Your task to perform on an android device: show emergency info Image 0: 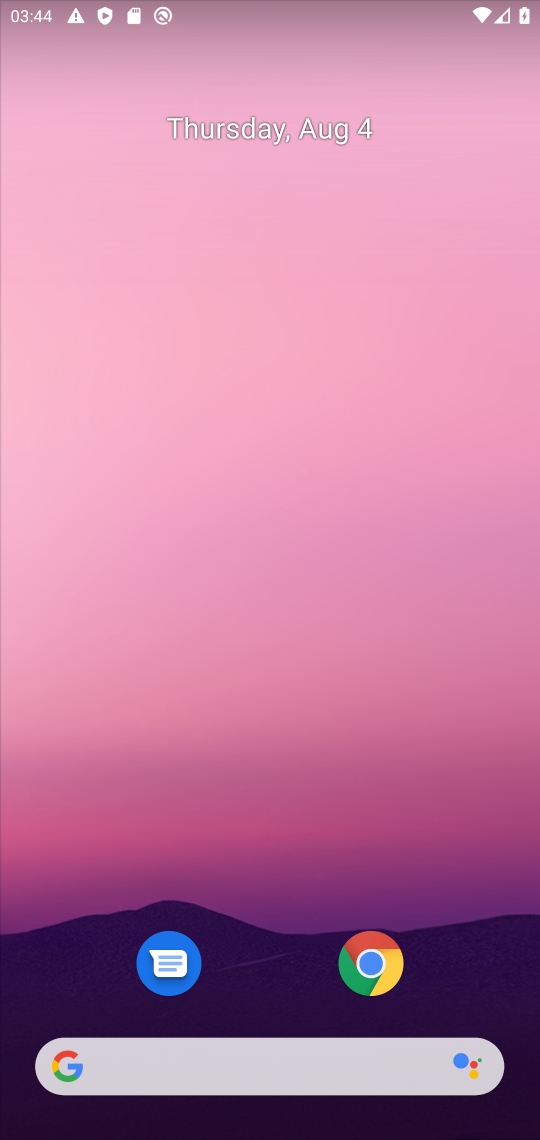
Step 0: drag from (503, 914) to (510, 25)
Your task to perform on an android device: show emergency info Image 1: 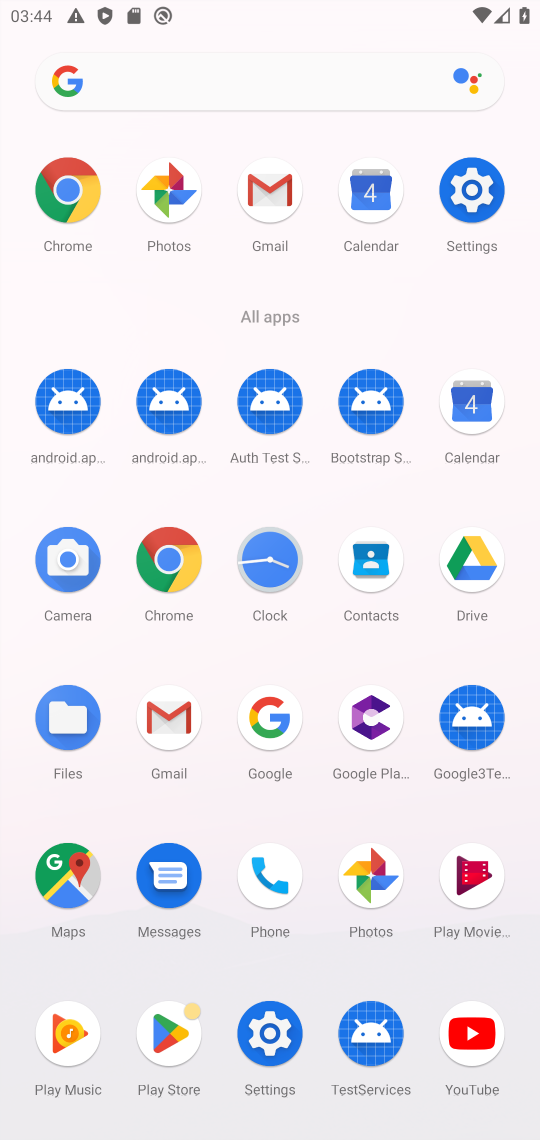
Step 1: click (467, 195)
Your task to perform on an android device: show emergency info Image 2: 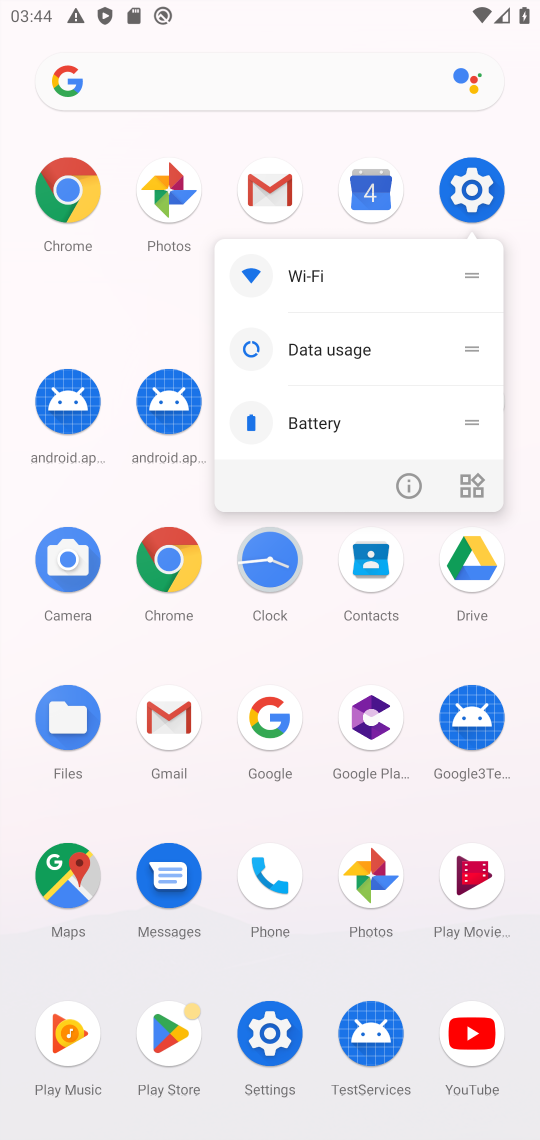
Step 2: click (467, 195)
Your task to perform on an android device: show emergency info Image 3: 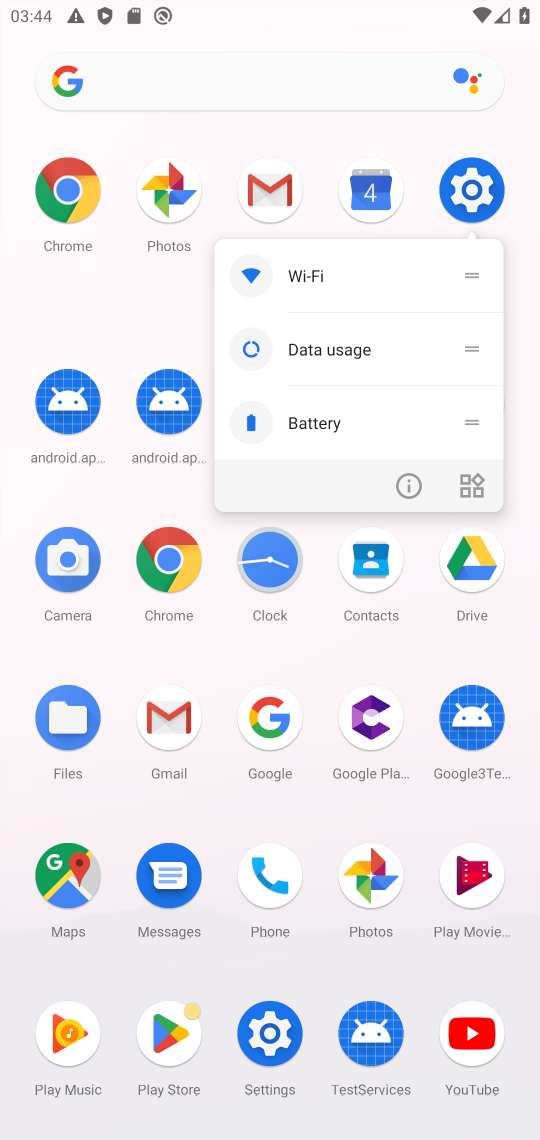
Step 3: click (467, 195)
Your task to perform on an android device: show emergency info Image 4: 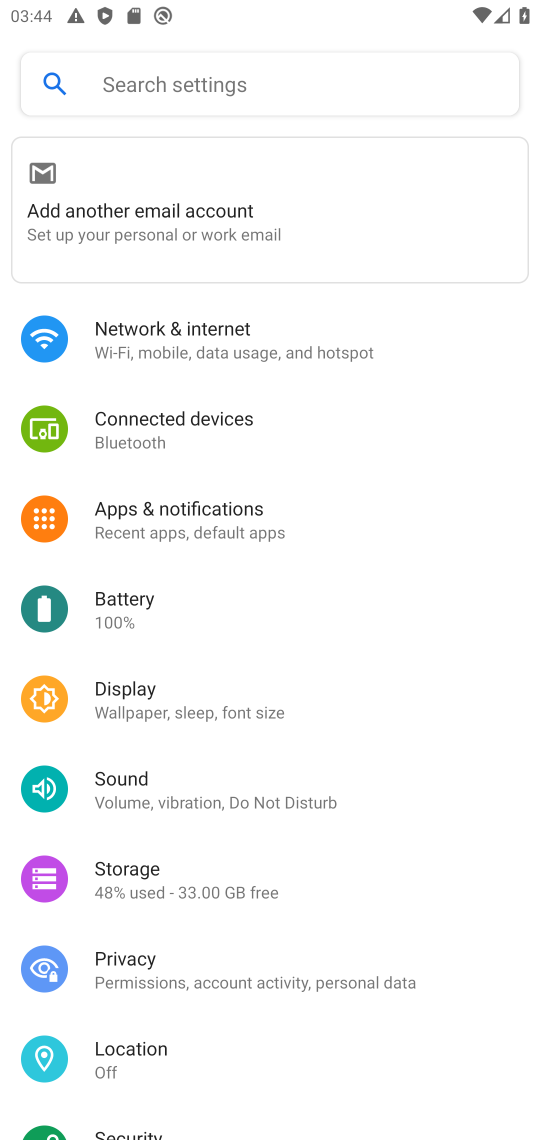
Step 4: drag from (470, 1065) to (489, 216)
Your task to perform on an android device: show emergency info Image 5: 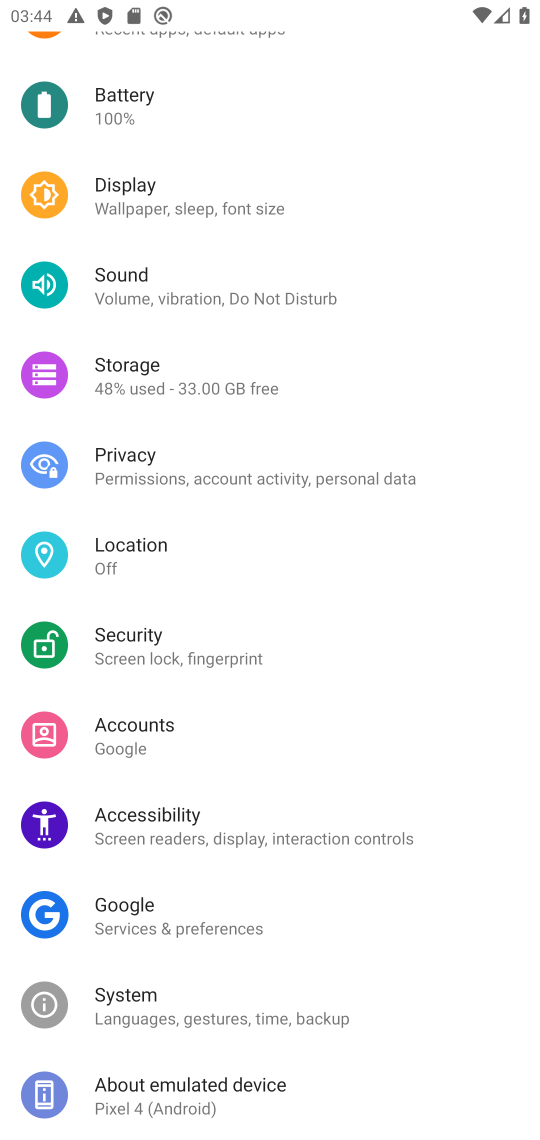
Step 5: click (176, 1084)
Your task to perform on an android device: show emergency info Image 6: 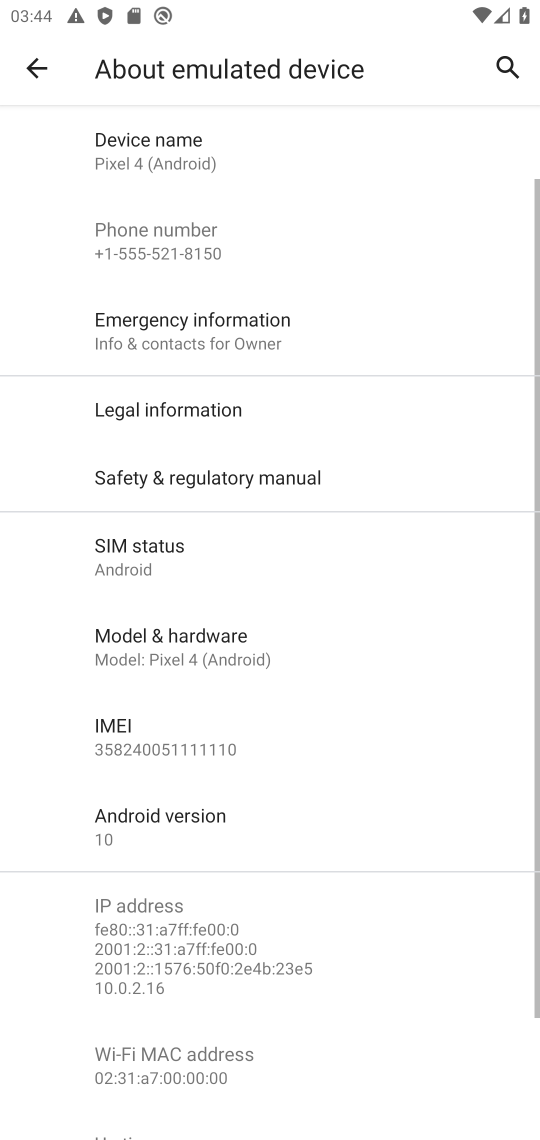
Step 6: click (139, 354)
Your task to perform on an android device: show emergency info Image 7: 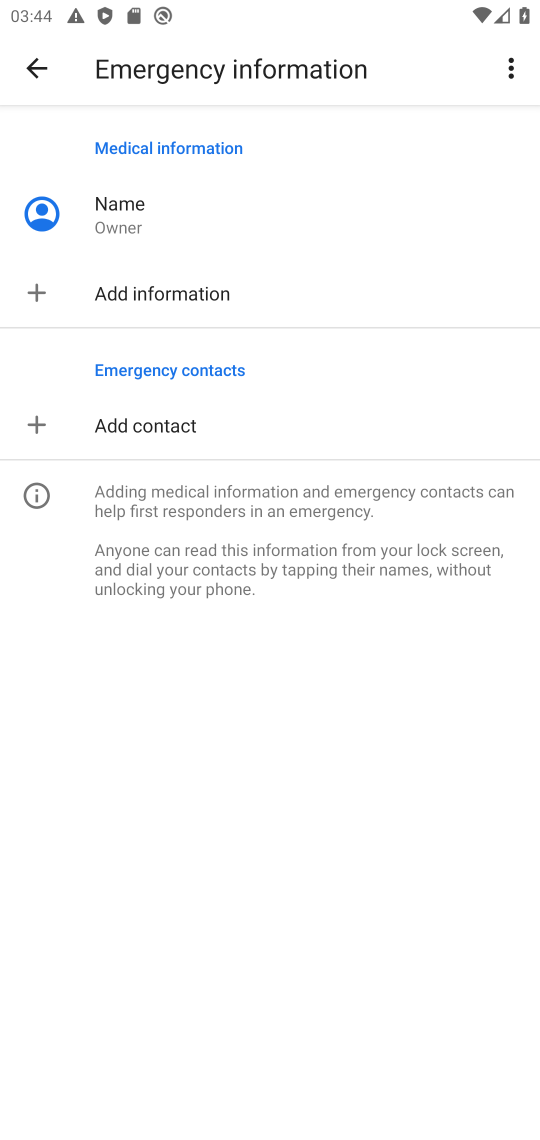
Step 7: task complete